Your task to perform on an android device: manage bookmarks in the chrome app Image 0: 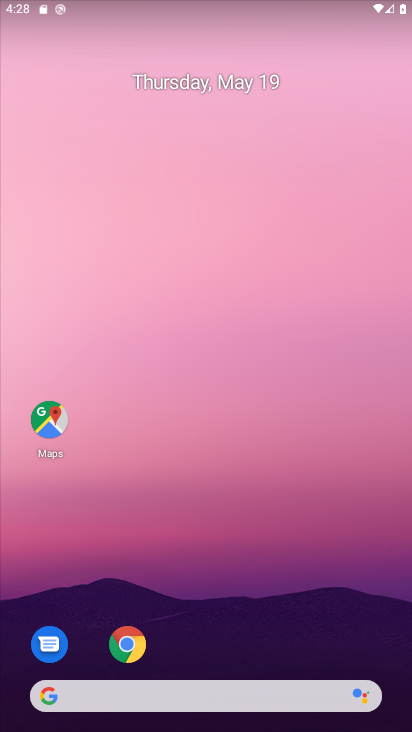
Step 0: press home button
Your task to perform on an android device: manage bookmarks in the chrome app Image 1: 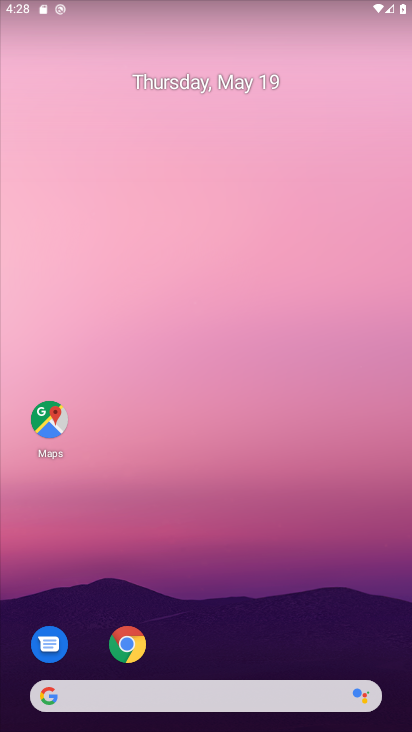
Step 1: click (119, 644)
Your task to perform on an android device: manage bookmarks in the chrome app Image 2: 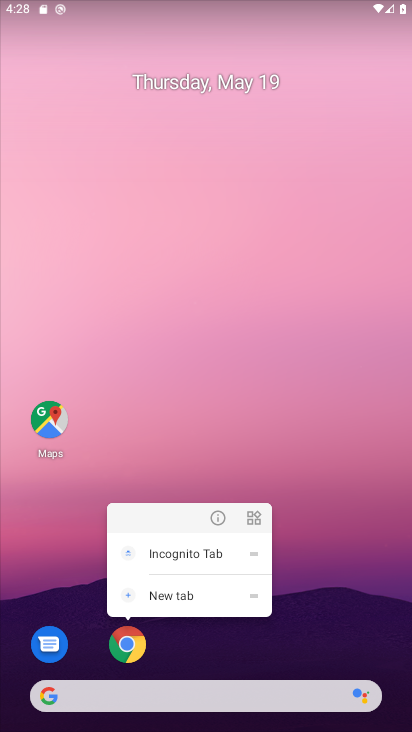
Step 2: click (119, 644)
Your task to perform on an android device: manage bookmarks in the chrome app Image 3: 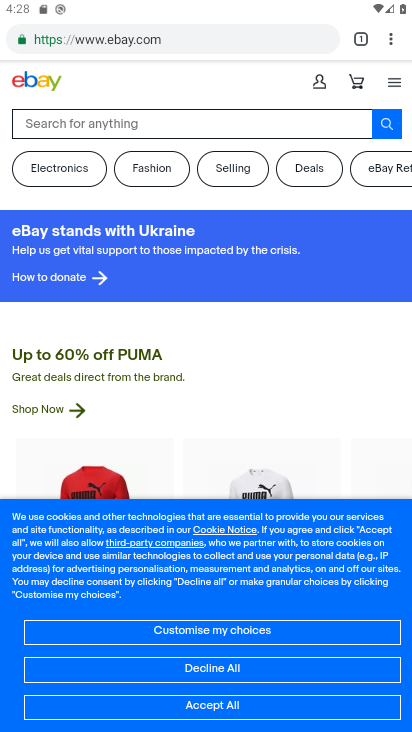
Step 3: drag from (385, 38) to (225, 465)
Your task to perform on an android device: manage bookmarks in the chrome app Image 4: 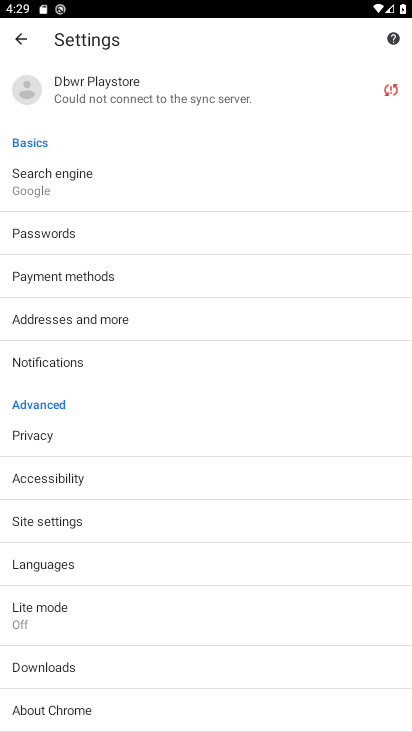
Step 4: click (13, 35)
Your task to perform on an android device: manage bookmarks in the chrome app Image 5: 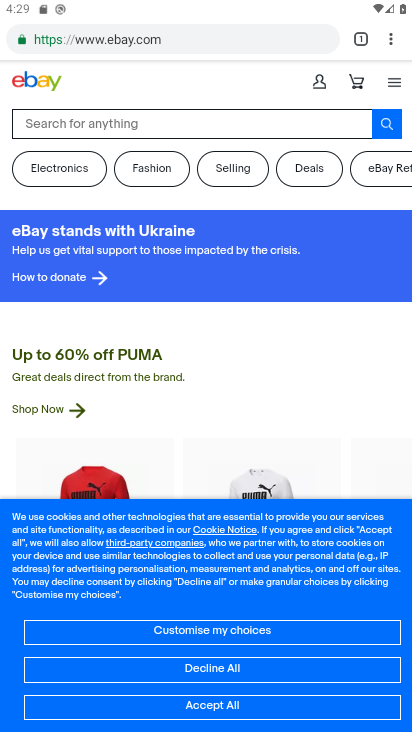
Step 5: task complete